Your task to perform on an android device: turn smart compose on in the gmail app Image 0: 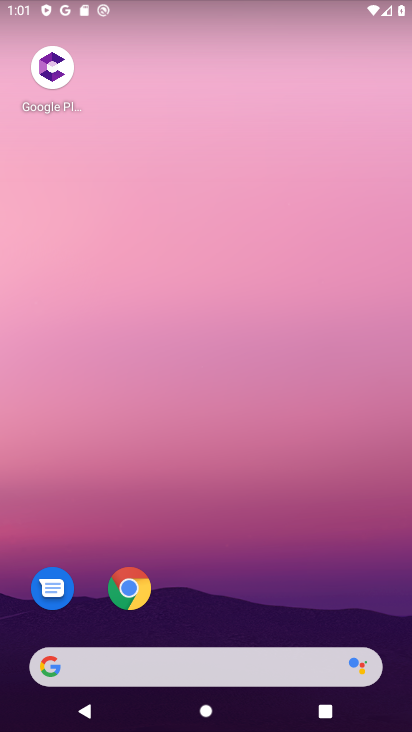
Step 0: drag from (200, 595) to (194, 95)
Your task to perform on an android device: turn smart compose on in the gmail app Image 1: 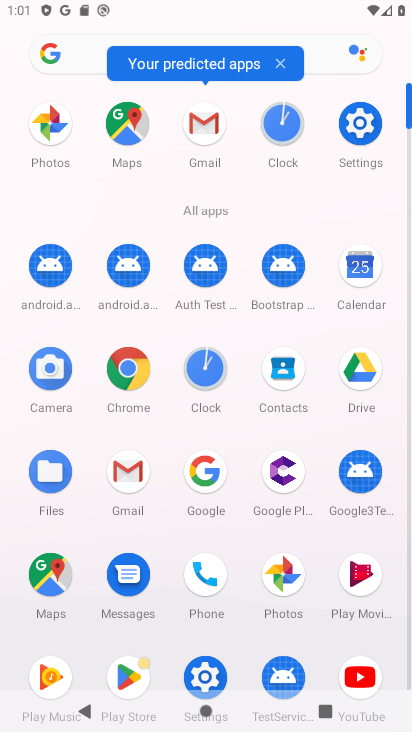
Step 1: click (204, 137)
Your task to perform on an android device: turn smart compose on in the gmail app Image 2: 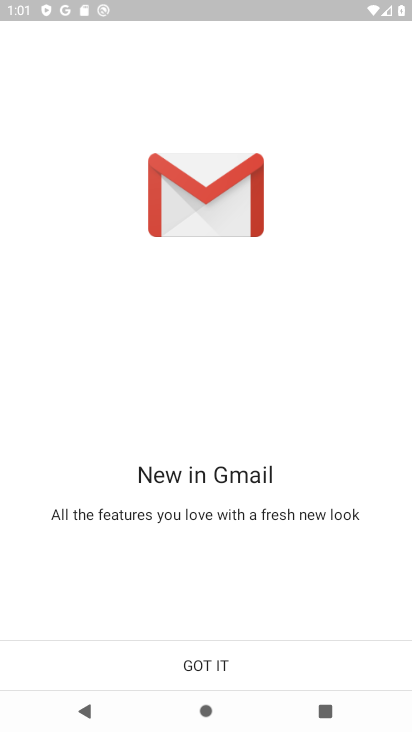
Step 2: click (196, 649)
Your task to perform on an android device: turn smart compose on in the gmail app Image 3: 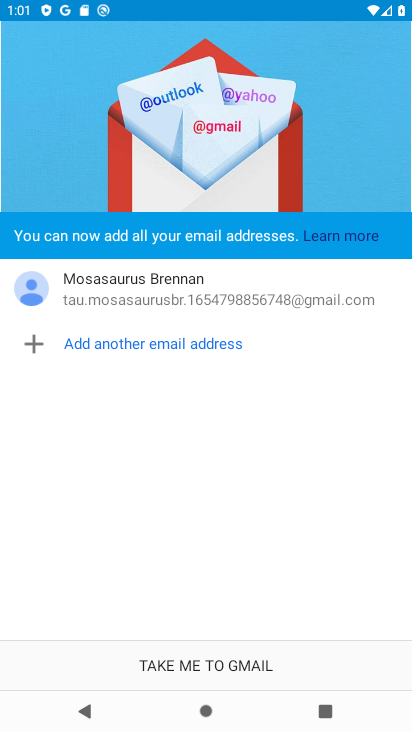
Step 3: click (196, 649)
Your task to perform on an android device: turn smart compose on in the gmail app Image 4: 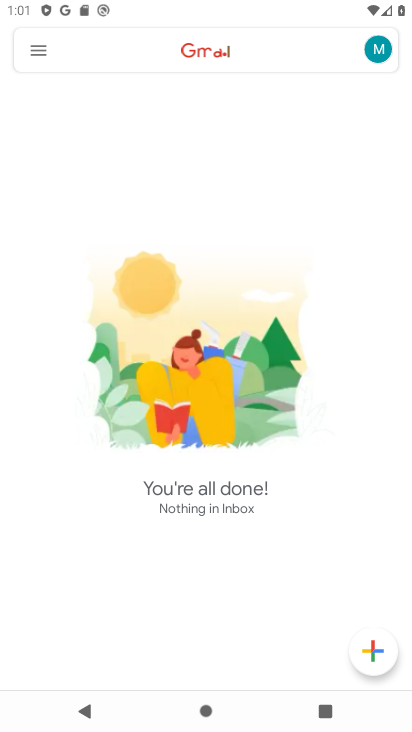
Step 4: click (35, 45)
Your task to perform on an android device: turn smart compose on in the gmail app Image 5: 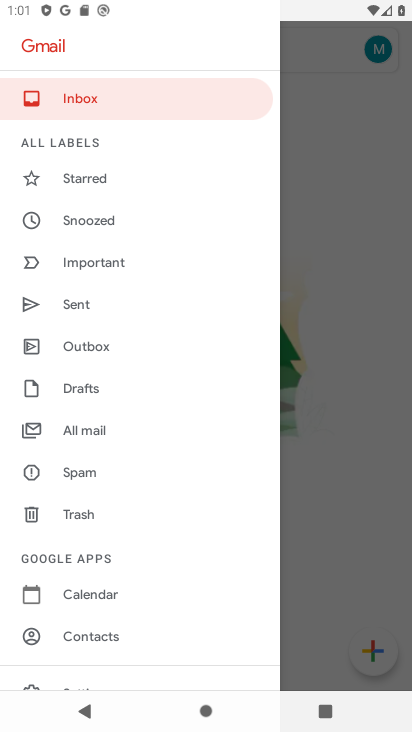
Step 5: drag from (86, 546) to (80, 317)
Your task to perform on an android device: turn smart compose on in the gmail app Image 6: 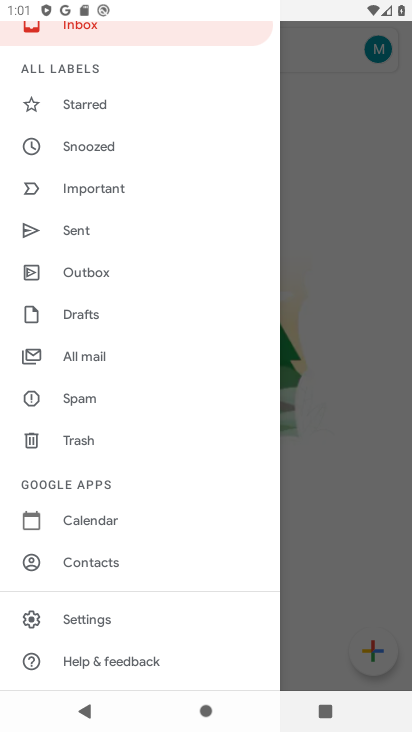
Step 6: click (53, 622)
Your task to perform on an android device: turn smart compose on in the gmail app Image 7: 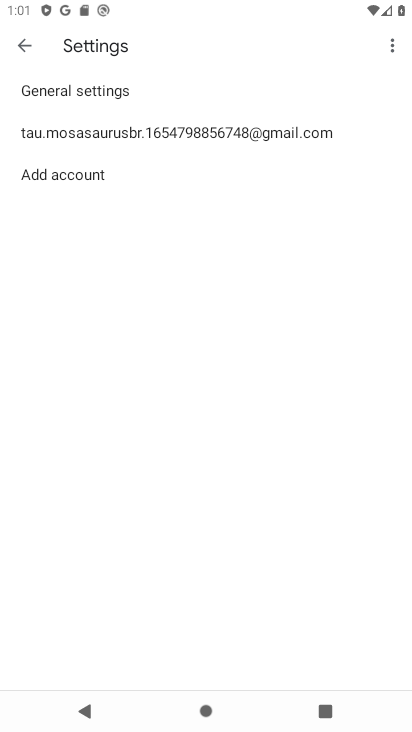
Step 7: click (116, 140)
Your task to perform on an android device: turn smart compose on in the gmail app Image 8: 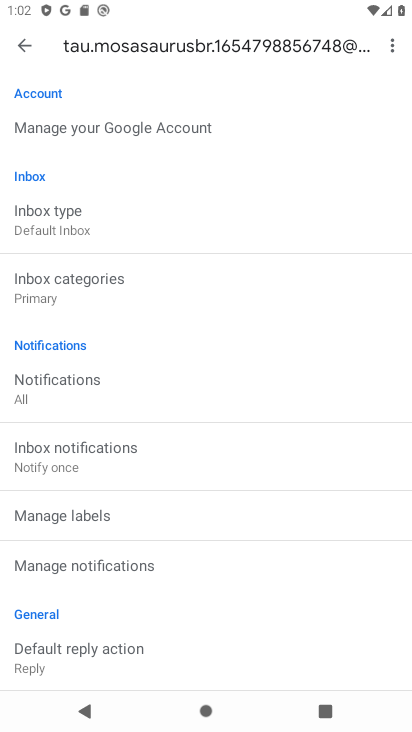
Step 8: task complete